Your task to perform on an android device: remove spam from my inbox in the gmail app Image 0: 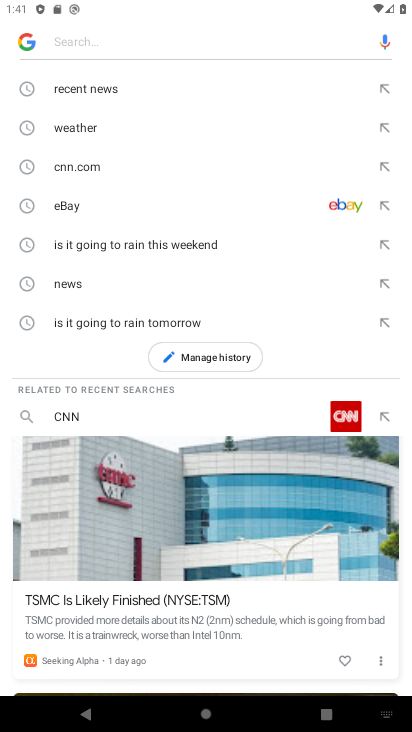
Step 0: click (78, 711)
Your task to perform on an android device: remove spam from my inbox in the gmail app Image 1: 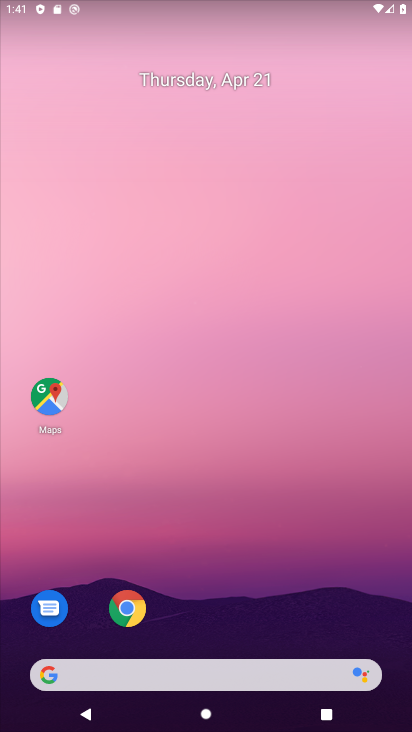
Step 1: drag from (189, 529) to (259, 189)
Your task to perform on an android device: remove spam from my inbox in the gmail app Image 2: 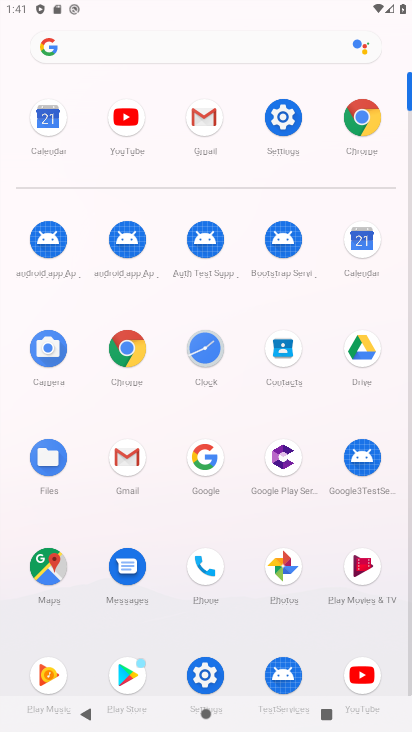
Step 2: click (216, 128)
Your task to perform on an android device: remove spam from my inbox in the gmail app Image 3: 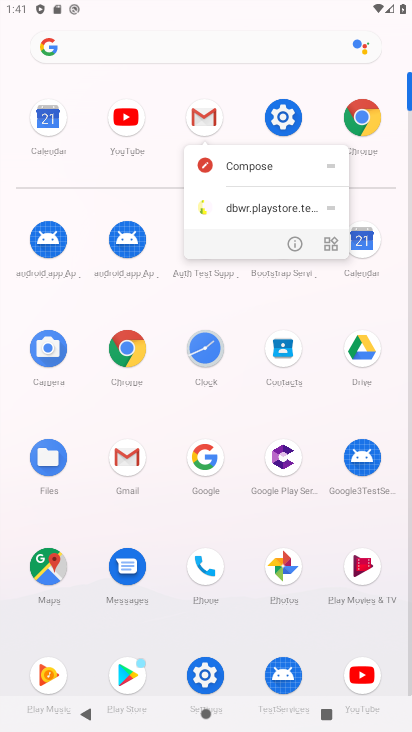
Step 3: click (216, 128)
Your task to perform on an android device: remove spam from my inbox in the gmail app Image 4: 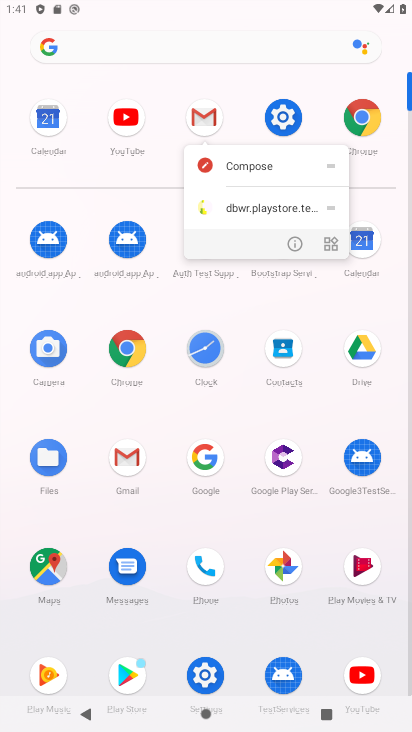
Step 4: click (216, 128)
Your task to perform on an android device: remove spam from my inbox in the gmail app Image 5: 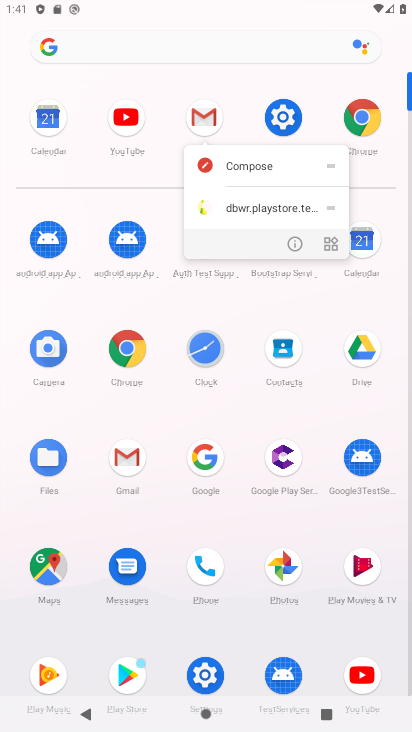
Step 5: click (216, 128)
Your task to perform on an android device: remove spam from my inbox in the gmail app Image 6: 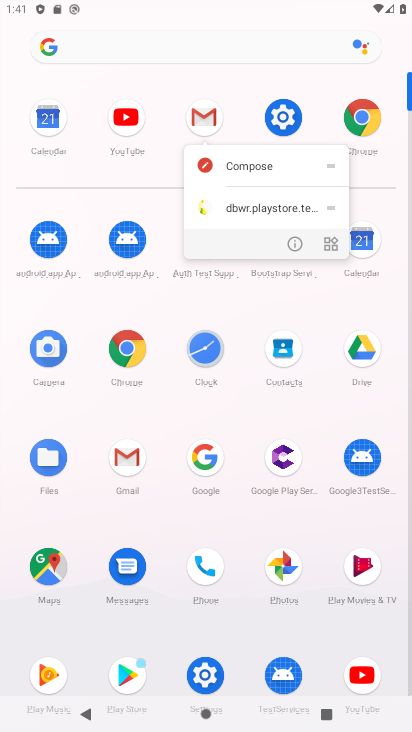
Step 6: click (216, 128)
Your task to perform on an android device: remove spam from my inbox in the gmail app Image 7: 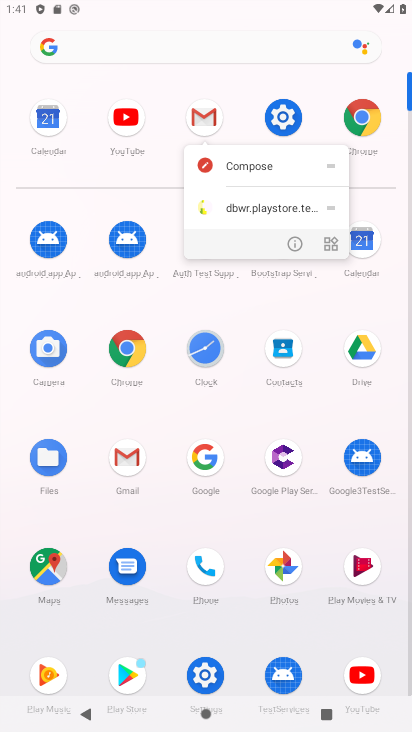
Step 7: click (216, 128)
Your task to perform on an android device: remove spam from my inbox in the gmail app Image 8: 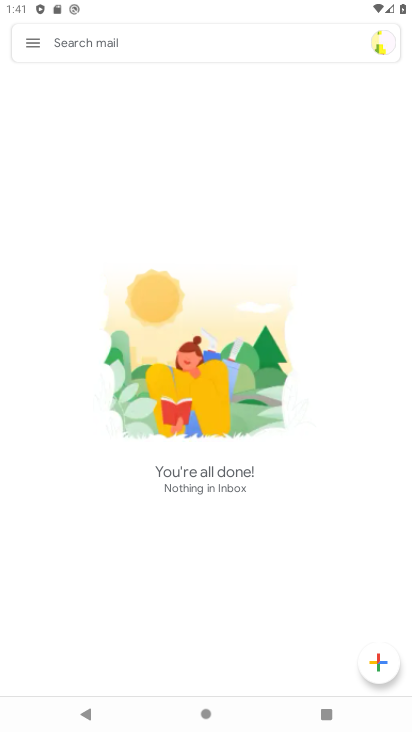
Step 8: click (38, 46)
Your task to perform on an android device: remove spam from my inbox in the gmail app Image 9: 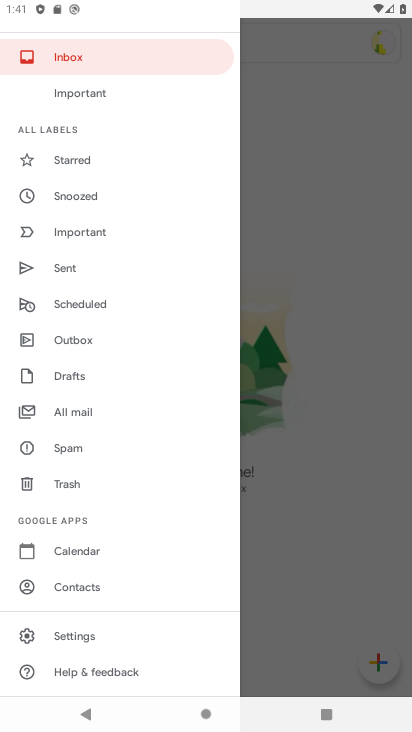
Step 9: click (65, 455)
Your task to perform on an android device: remove spam from my inbox in the gmail app Image 10: 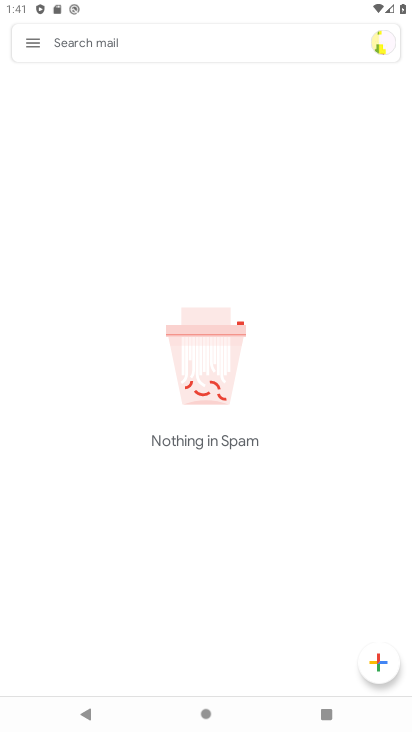
Step 10: task complete